Your task to perform on an android device: toggle show notifications on the lock screen Image 0: 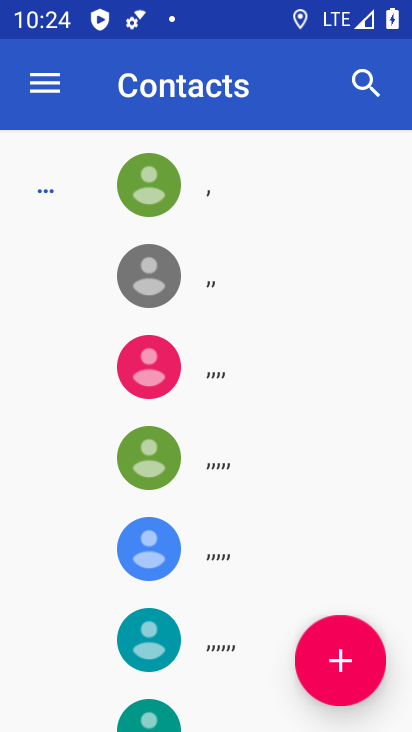
Step 0: press home button
Your task to perform on an android device: toggle show notifications on the lock screen Image 1: 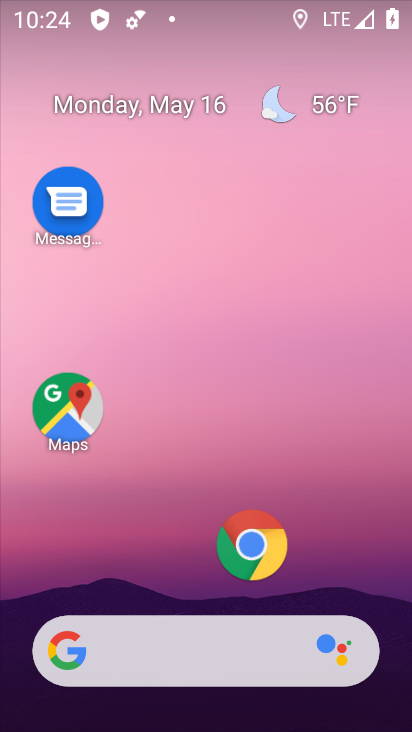
Step 1: drag from (210, 616) to (397, 4)
Your task to perform on an android device: toggle show notifications on the lock screen Image 2: 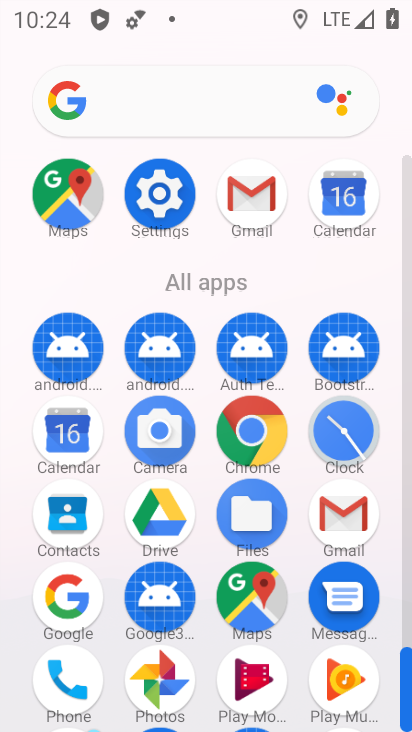
Step 2: click (142, 202)
Your task to perform on an android device: toggle show notifications on the lock screen Image 3: 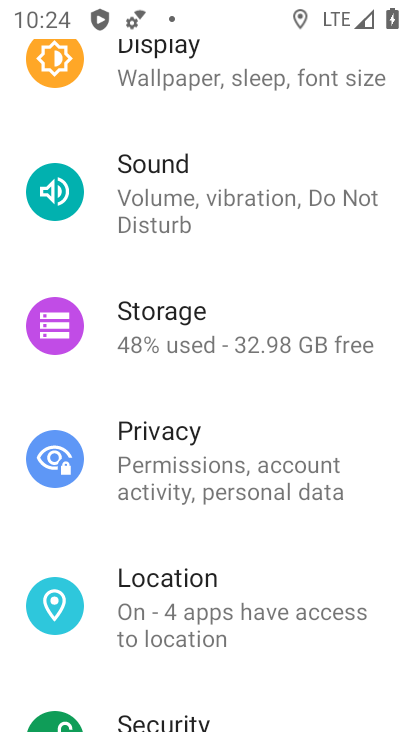
Step 3: drag from (216, 579) to (133, 147)
Your task to perform on an android device: toggle show notifications on the lock screen Image 4: 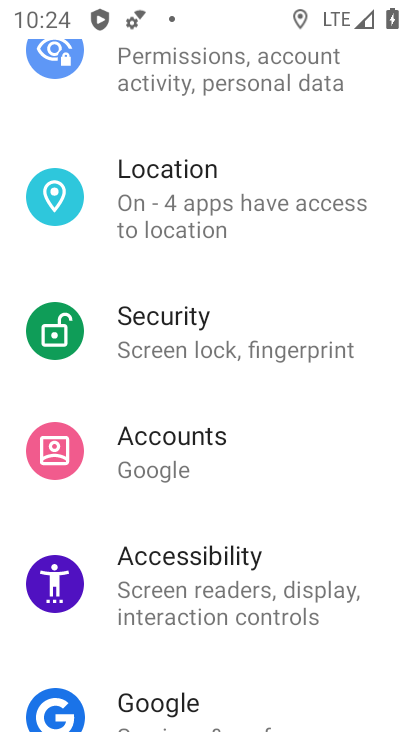
Step 4: drag from (232, 541) to (202, 58)
Your task to perform on an android device: toggle show notifications on the lock screen Image 5: 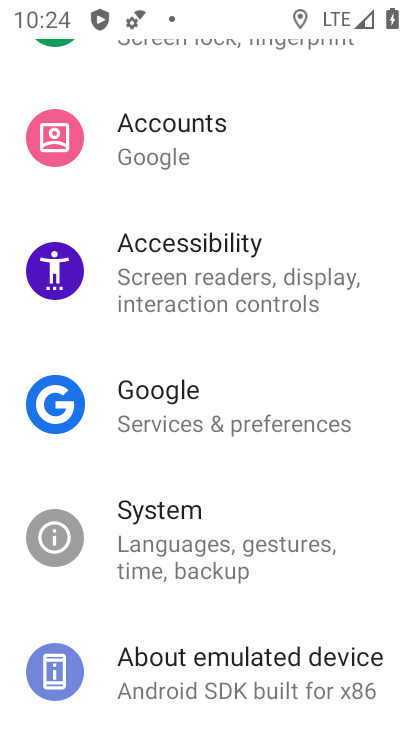
Step 5: drag from (212, 203) to (241, 593)
Your task to perform on an android device: toggle show notifications on the lock screen Image 6: 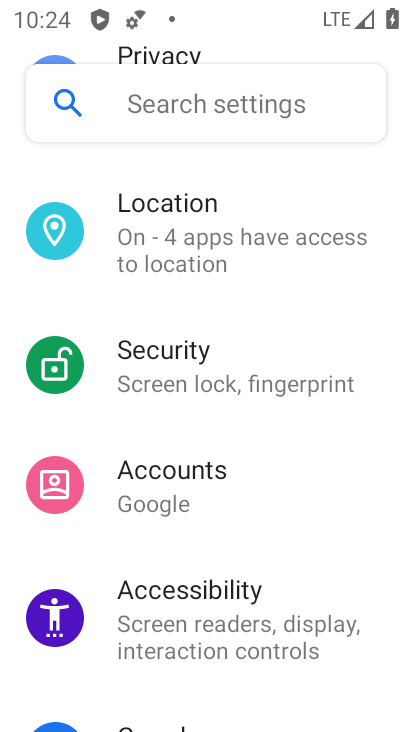
Step 6: drag from (262, 224) to (275, 702)
Your task to perform on an android device: toggle show notifications on the lock screen Image 7: 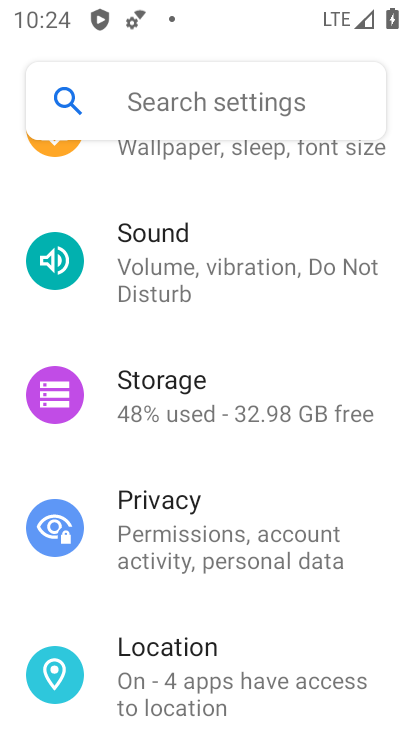
Step 7: drag from (276, 234) to (259, 727)
Your task to perform on an android device: toggle show notifications on the lock screen Image 8: 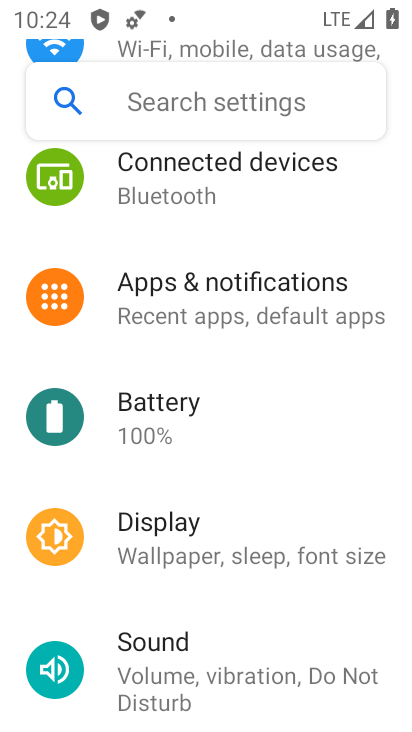
Step 8: click (210, 317)
Your task to perform on an android device: toggle show notifications on the lock screen Image 9: 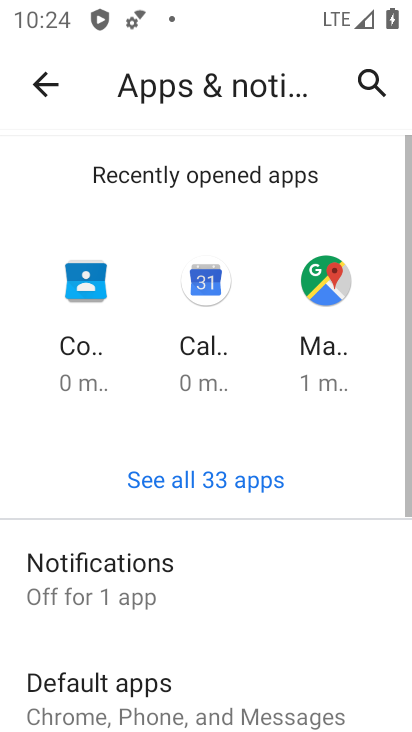
Step 9: drag from (243, 527) to (210, 194)
Your task to perform on an android device: toggle show notifications on the lock screen Image 10: 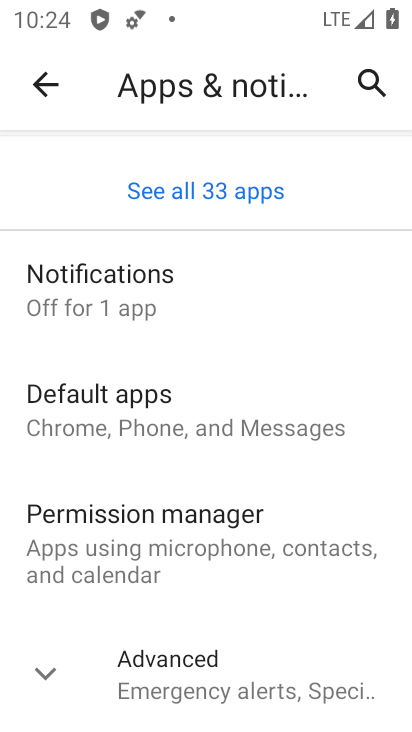
Step 10: click (145, 312)
Your task to perform on an android device: toggle show notifications on the lock screen Image 11: 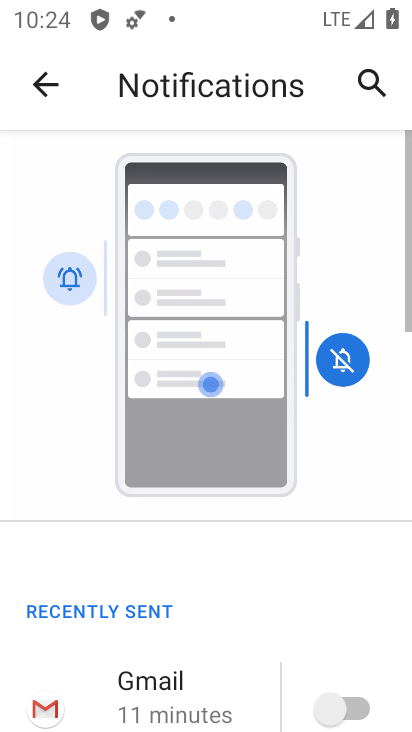
Step 11: drag from (191, 569) to (149, 4)
Your task to perform on an android device: toggle show notifications on the lock screen Image 12: 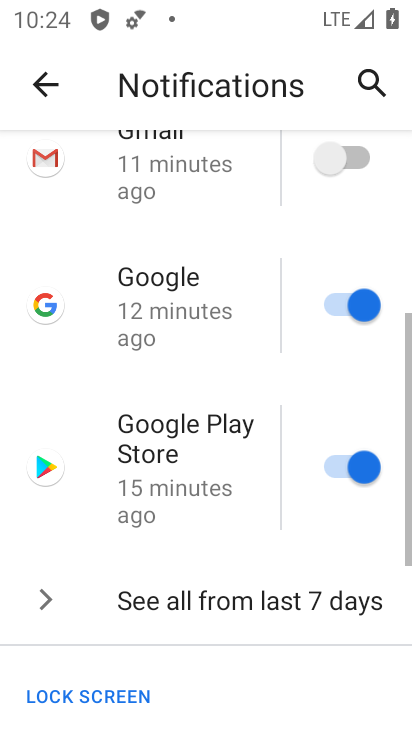
Step 12: drag from (215, 582) to (167, 154)
Your task to perform on an android device: toggle show notifications on the lock screen Image 13: 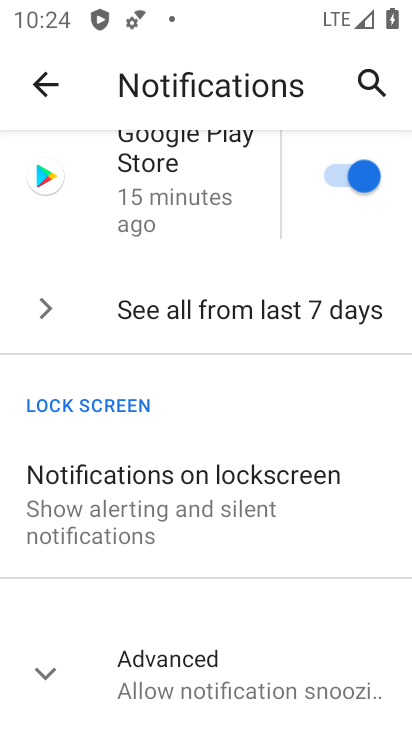
Step 13: click (176, 522)
Your task to perform on an android device: toggle show notifications on the lock screen Image 14: 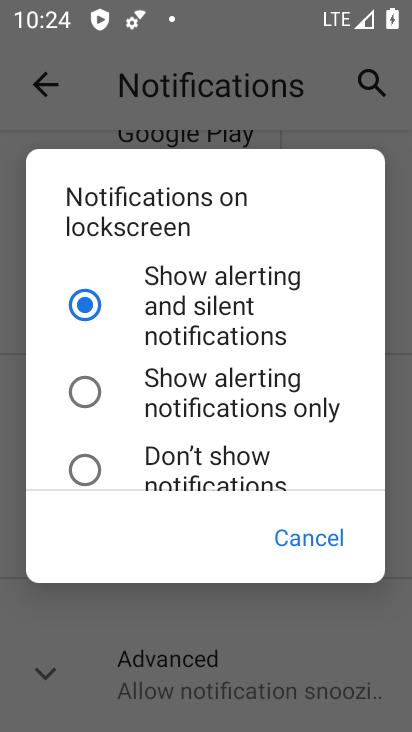
Step 14: task complete